Your task to perform on an android device: turn on translation in the chrome app Image 0: 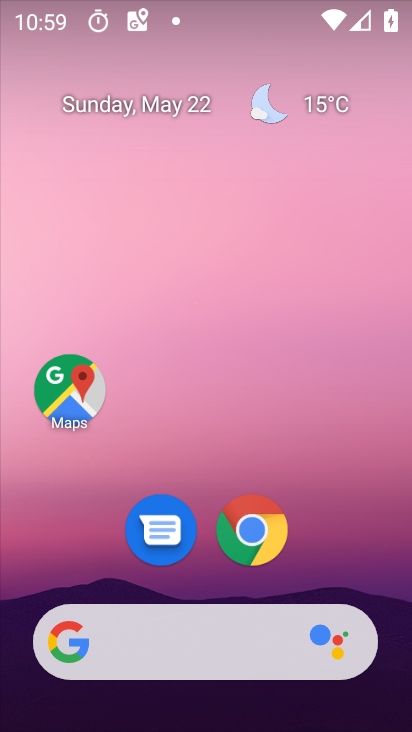
Step 0: click (261, 517)
Your task to perform on an android device: turn on translation in the chrome app Image 1: 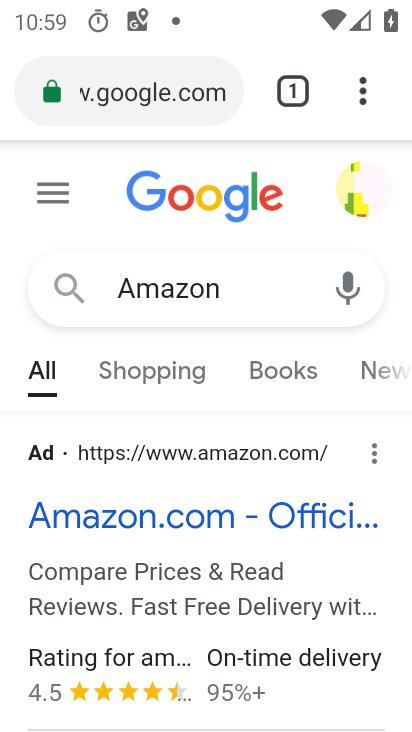
Step 1: click (364, 92)
Your task to perform on an android device: turn on translation in the chrome app Image 2: 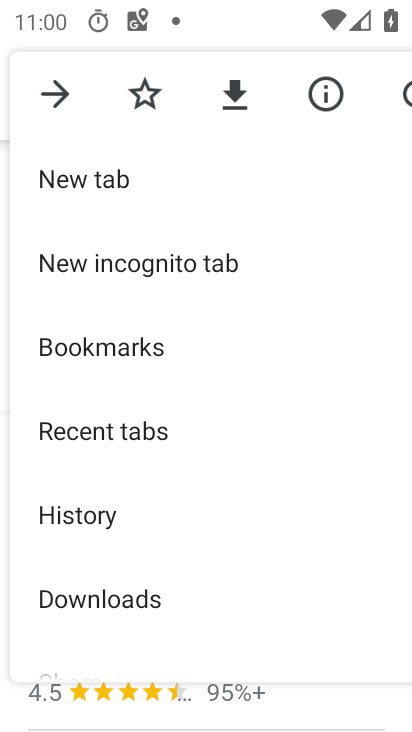
Step 2: drag from (228, 590) to (254, 270)
Your task to perform on an android device: turn on translation in the chrome app Image 3: 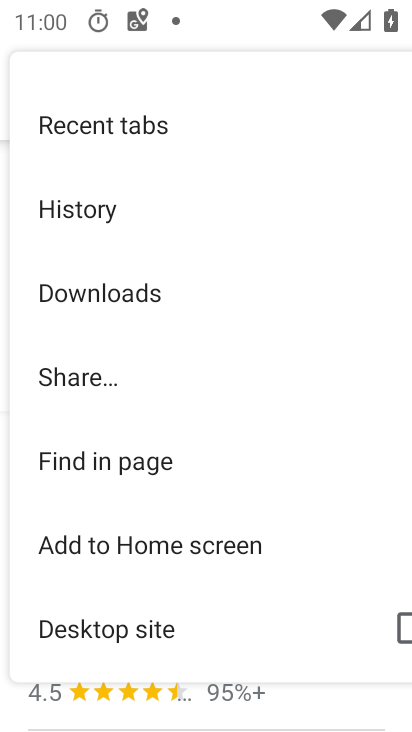
Step 3: drag from (330, 641) to (330, 352)
Your task to perform on an android device: turn on translation in the chrome app Image 4: 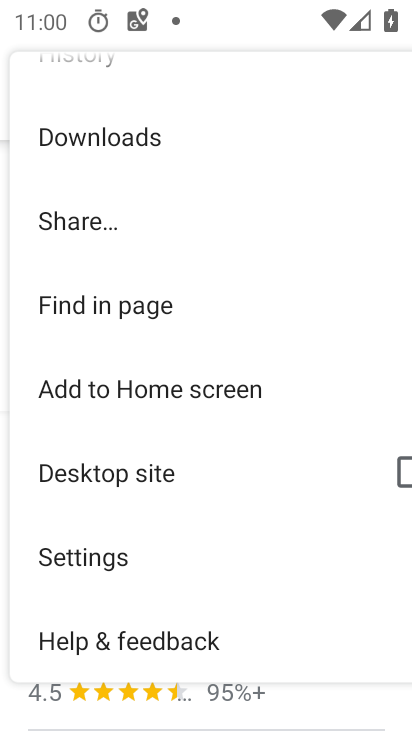
Step 4: click (71, 554)
Your task to perform on an android device: turn on translation in the chrome app Image 5: 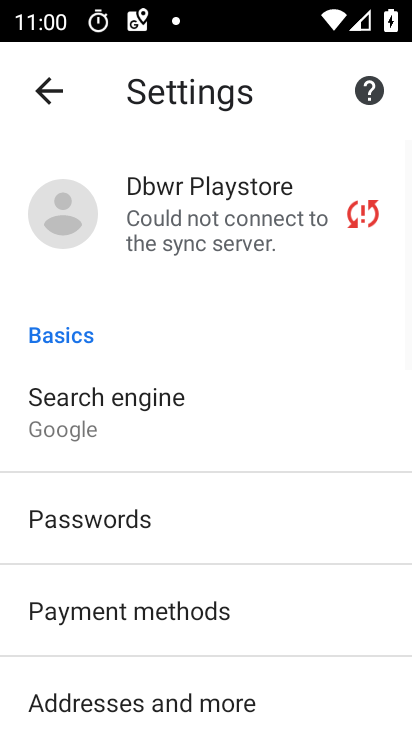
Step 5: drag from (303, 697) to (283, 333)
Your task to perform on an android device: turn on translation in the chrome app Image 6: 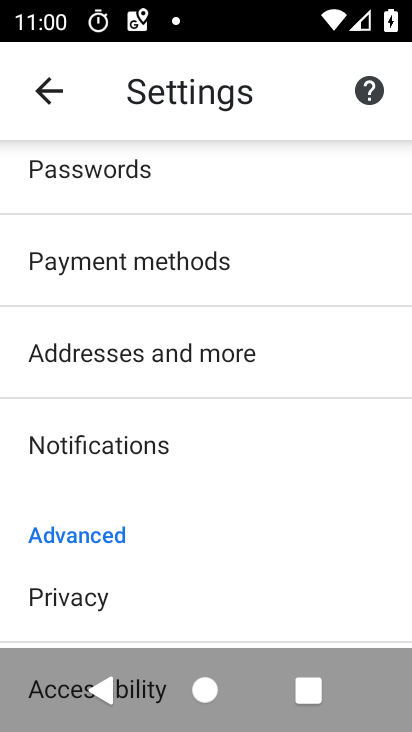
Step 6: drag from (246, 615) to (286, 355)
Your task to perform on an android device: turn on translation in the chrome app Image 7: 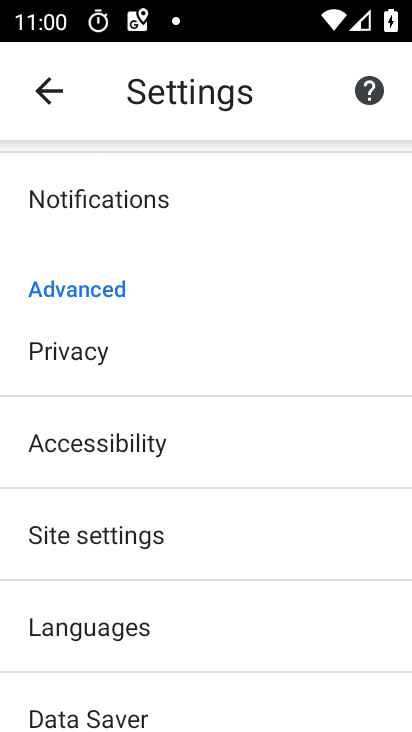
Step 7: click (115, 624)
Your task to perform on an android device: turn on translation in the chrome app Image 8: 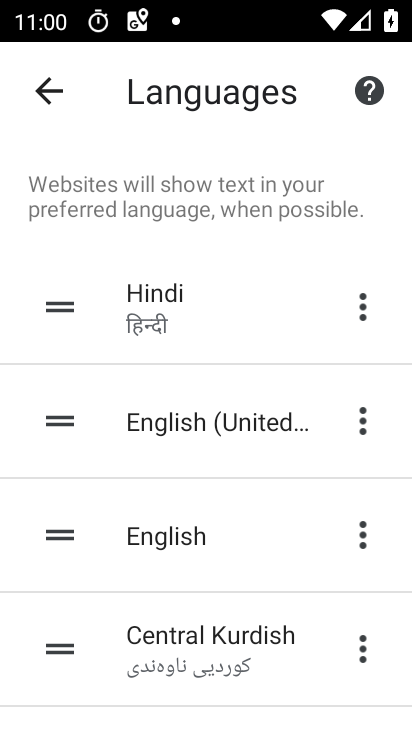
Step 8: drag from (285, 692) to (246, 369)
Your task to perform on an android device: turn on translation in the chrome app Image 9: 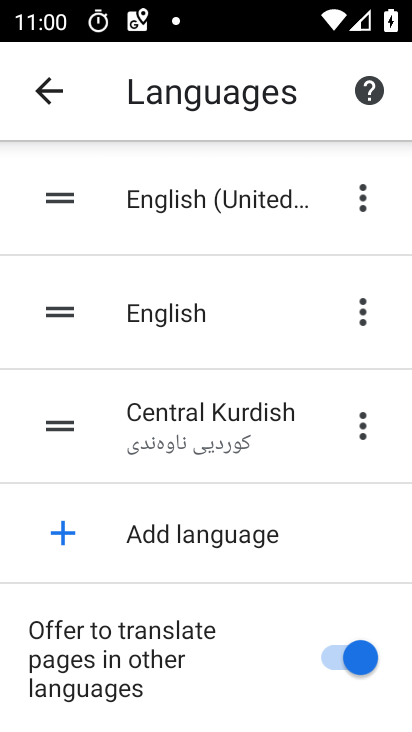
Step 9: click (324, 658)
Your task to perform on an android device: turn on translation in the chrome app Image 10: 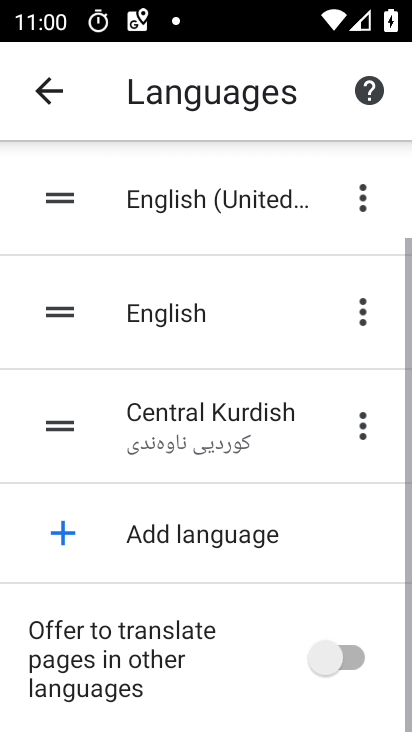
Step 10: click (344, 662)
Your task to perform on an android device: turn on translation in the chrome app Image 11: 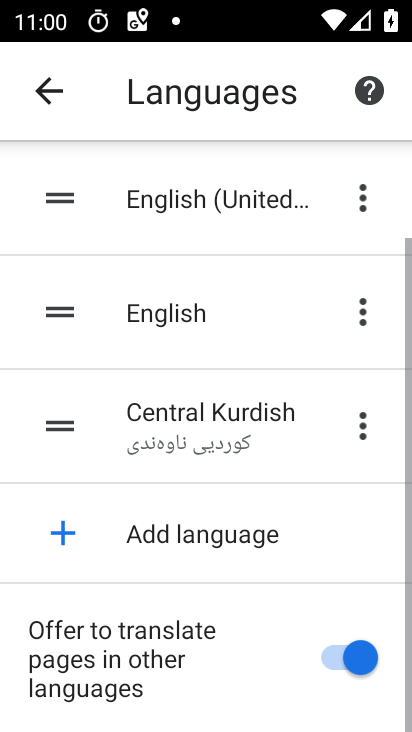
Step 11: task complete